Your task to perform on an android device: read, delete, or share a saved page in the chrome app Image 0: 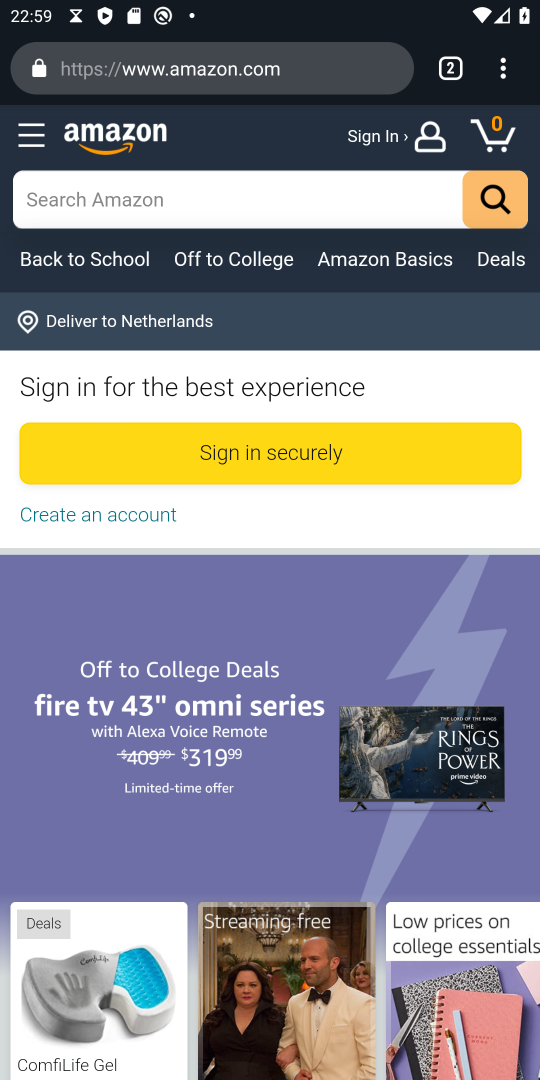
Step 0: click (502, 66)
Your task to perform on an android device: read, delete, or share a saved page in the chrome app Image 1: 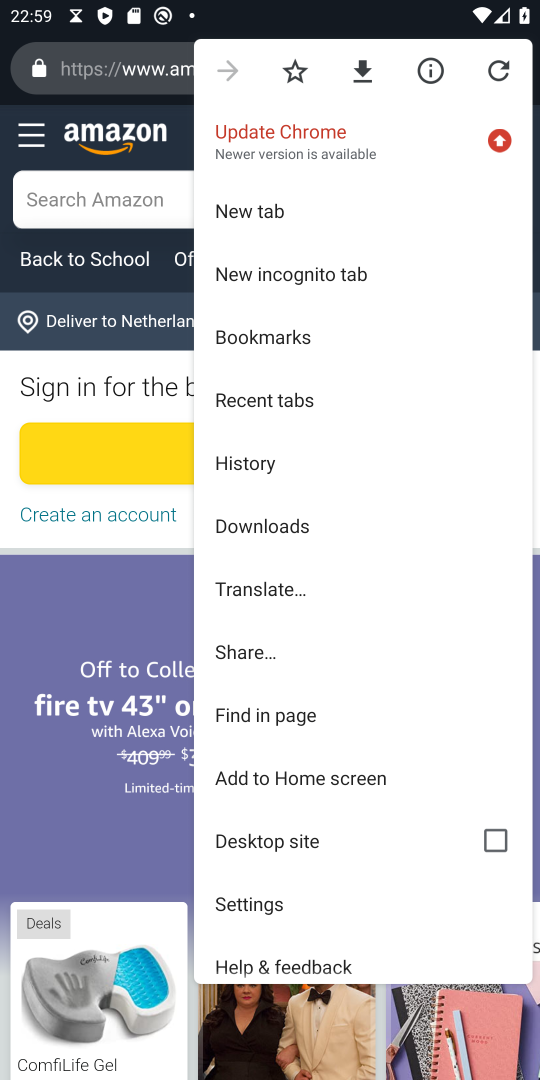
Step 1: click (254, 529)
Your task to perform on an android device: read, delete, or share a saved page in the chrome app Image 2: 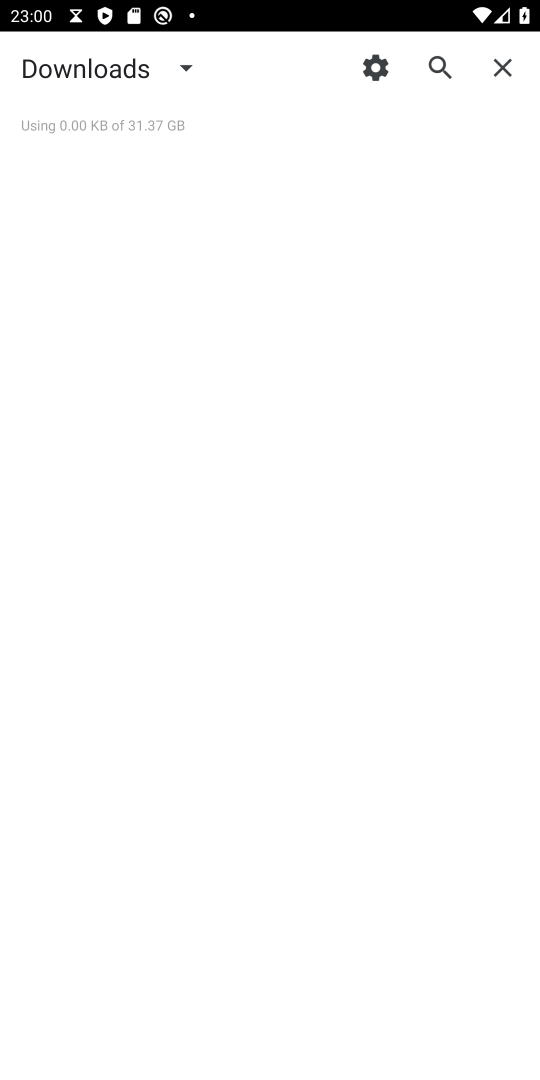
Step 2: task complete